Your task to perform on an android device: What's the weather going to be tomorrow? Image 0: 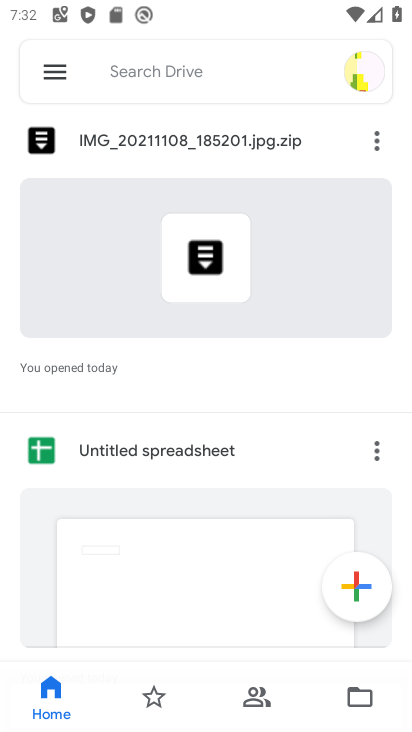
Step 0: press home button
Your task to perform on an android device: What's the weather going to be tomorrow? Image 1: 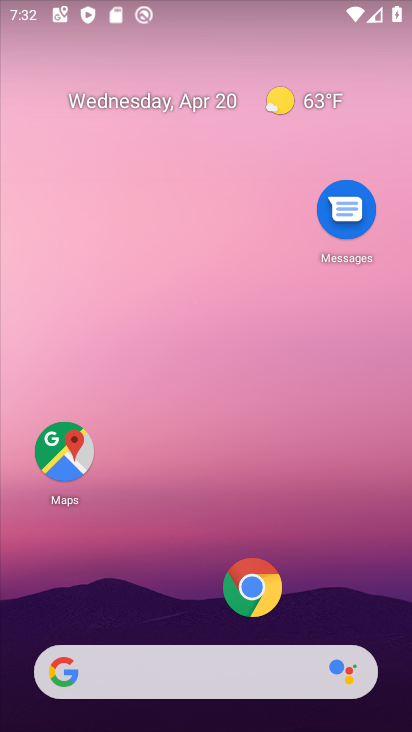
Step 1: click (315, 104)
Your task to perform on an android device: What's the weather going to be tomorrow? Image 2: 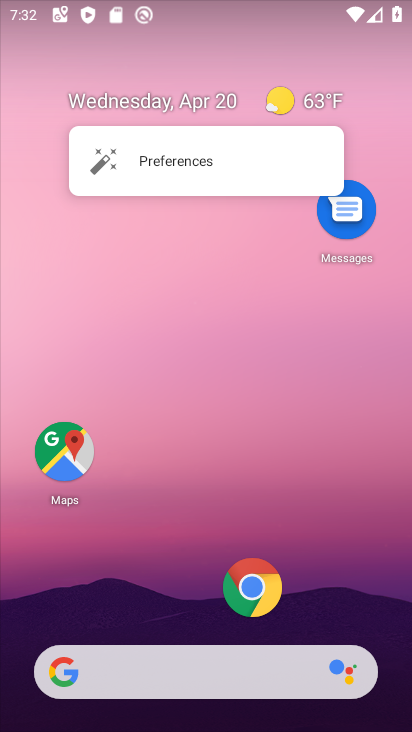
Step 2: click (315, 102)
Your task to perform on an android device: What's the weather going to be tomorrow? Image 3: 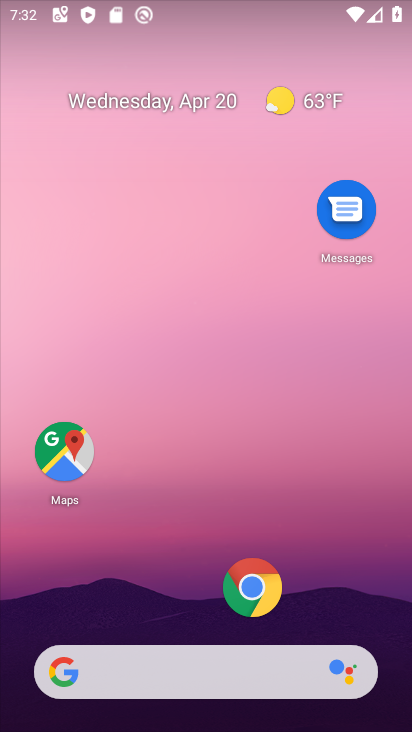
Step 3: click (311, 99)
Your task to perform on an android device: What's the weather going to be tomorrow? Image 4: 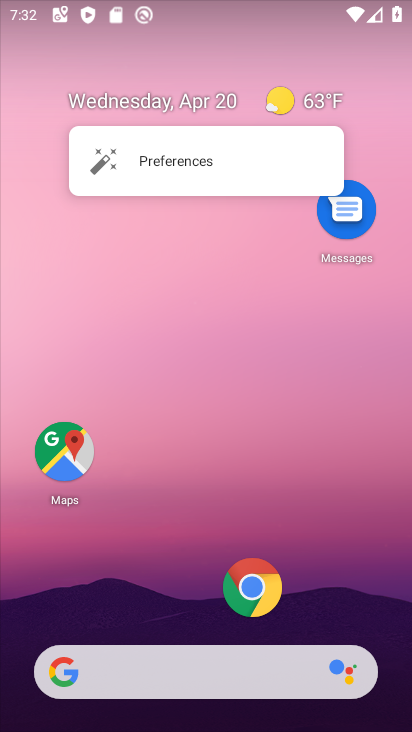
Step 4: click (281, 100)
Your task to perform on an android device: What's the weather going to be tomorrow? Image 5: 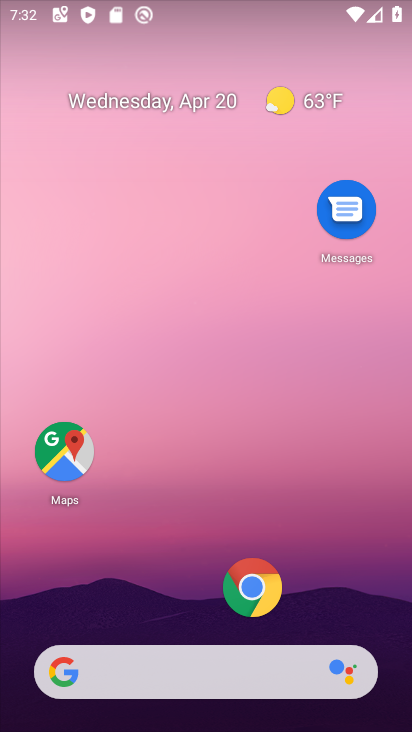
Step 5: click (330, 98)
Your task to perform on an android device: What's the weather going to be tomorrow? Image 6: 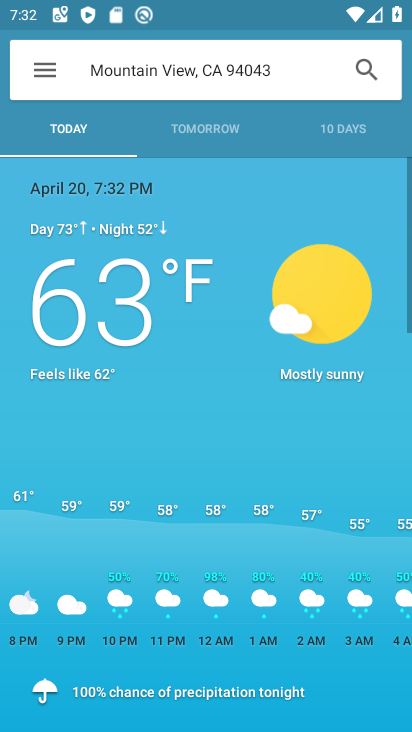
Step 6: click (211, 123)
Your task to perform on an android device: What's the weather going to be tomorrow? Image 7: 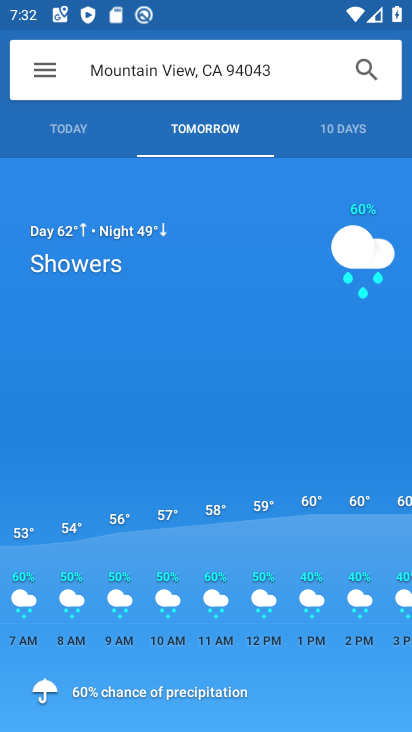
Step 7: task complete